Your task to perform on an android device: Is it going to rain tomorrow? Image 0: 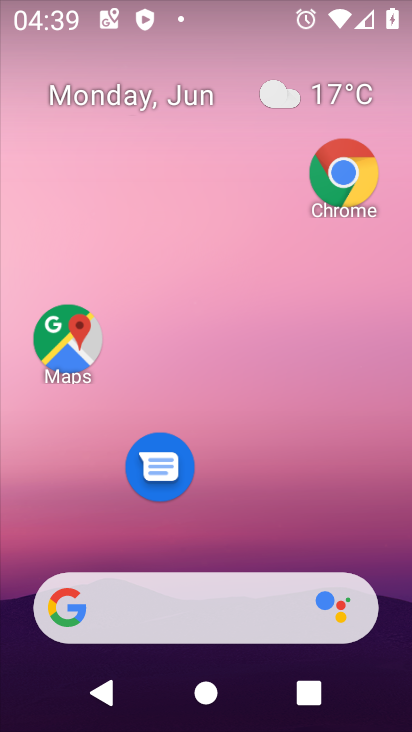
Step 0: click (283, 89)
Your task to perform on an android device: Is it going to rain tomorrow? Image 1: 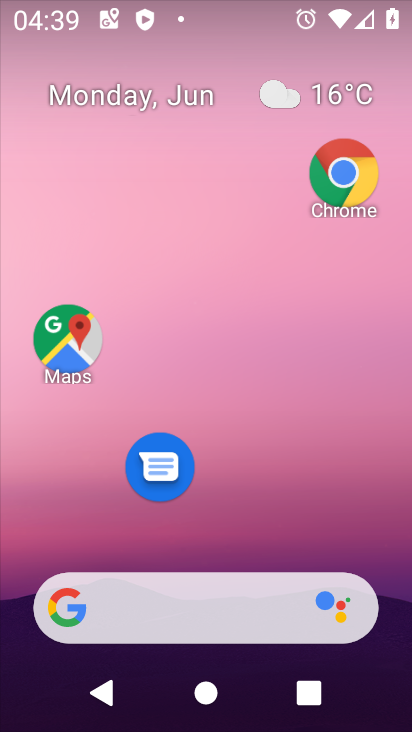
Step 1: click (298, 97)
Your task to perform on an android device: Is it going to rain tomorrow? Image 2: 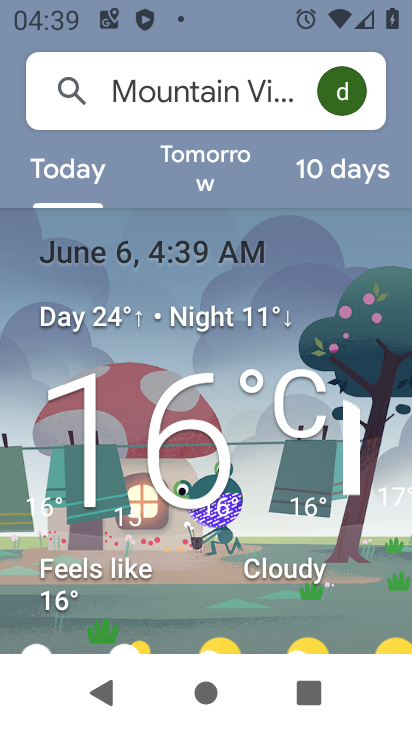
Step 2: click (227, 173)
Your task to perform on an android device: Is it going to rain tomorrow? Image 3: 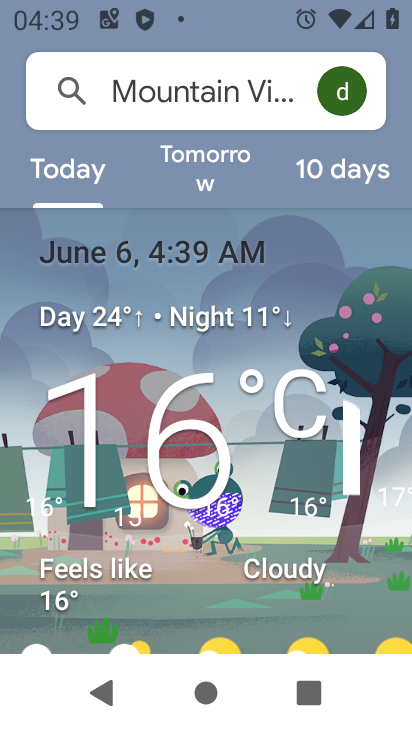
Step 3: click (226, 174)
Your task to perform on an android device: Is it going to rain tomorrow? Image 4: 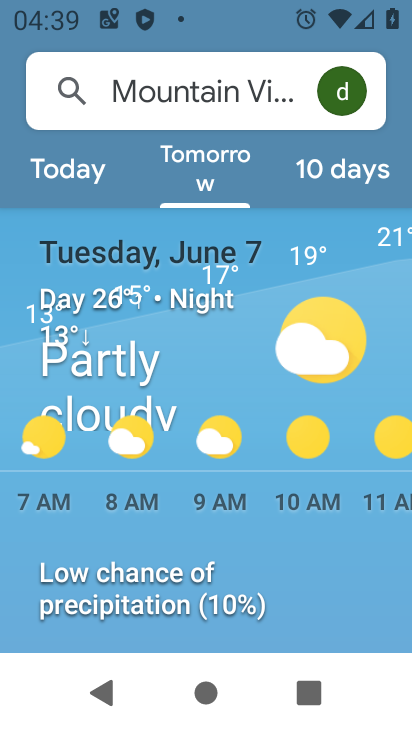
Step 4: task complete